Your task to perform on an android device: Open notification settings Image 0: 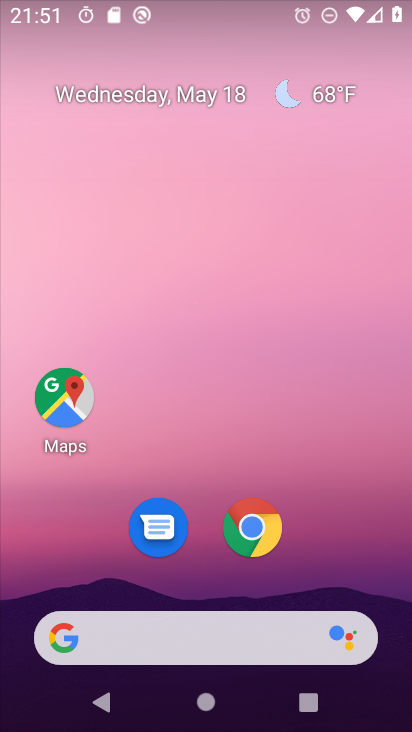
Step 0: click (408, 215)
Your task to perform on an android device: Open notification settings Image 1: 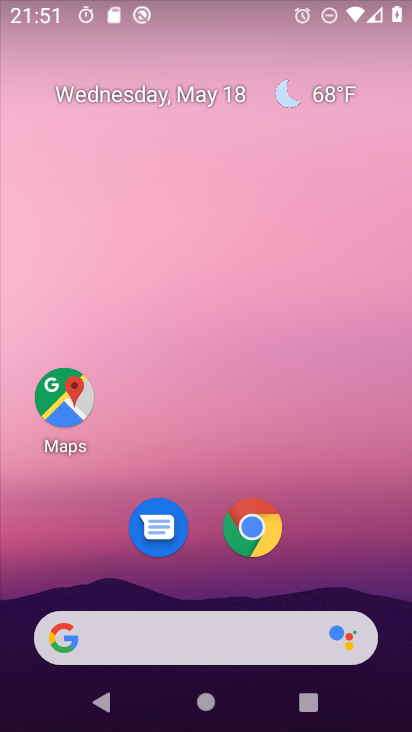
Step 1: drag from (398, 691) to (386, 269)
Your task to perform on an android device: Open notification settings Image 2: 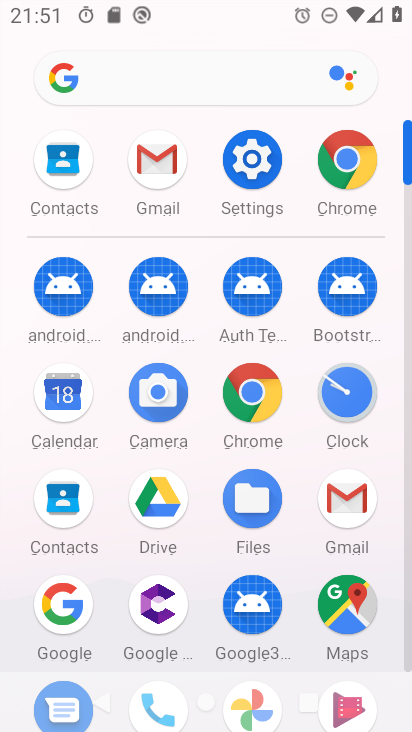
Step 2: click (243, 161)
Your task to perform on an android device: Open notification settings Image 3: 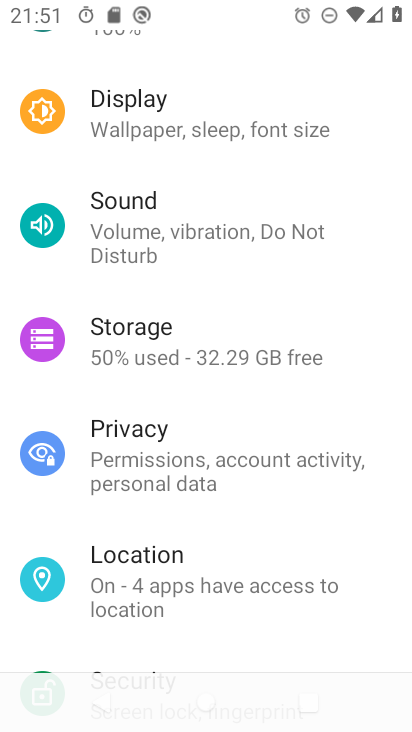
Step 3: drag from (278, 157) to (292, 555)
Your task to perform on an android device: Open notification settings Image 4: 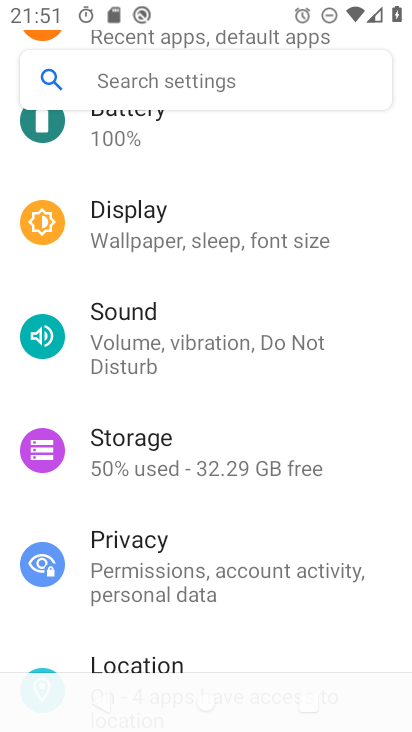
Step 4: drag from (235, 205) to (240, 576)
Your task to perform on an android device: Open notification settings Image 5: 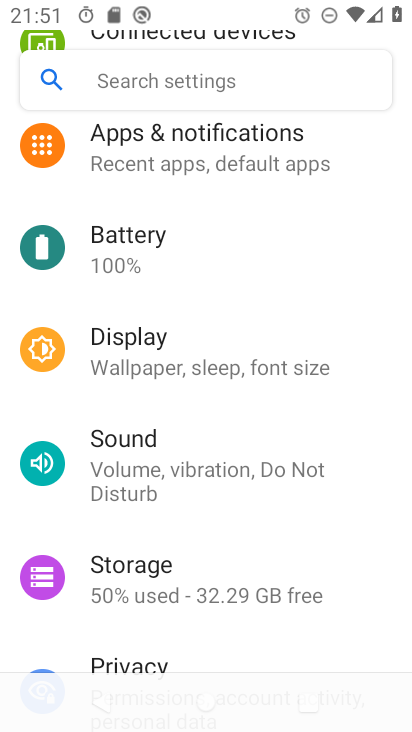
Step 5: click (203, 149)
Your task to perform on an android device: Open notification settings Image 6: 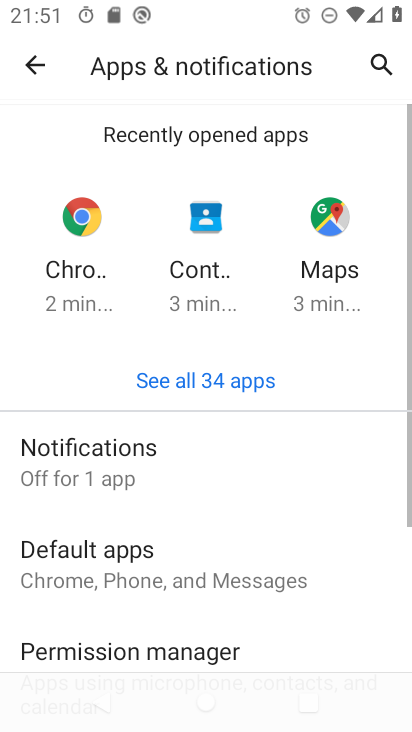
Step 6: click (97, 462)
Your task to perform on an android device: Open notification settings Image 7: 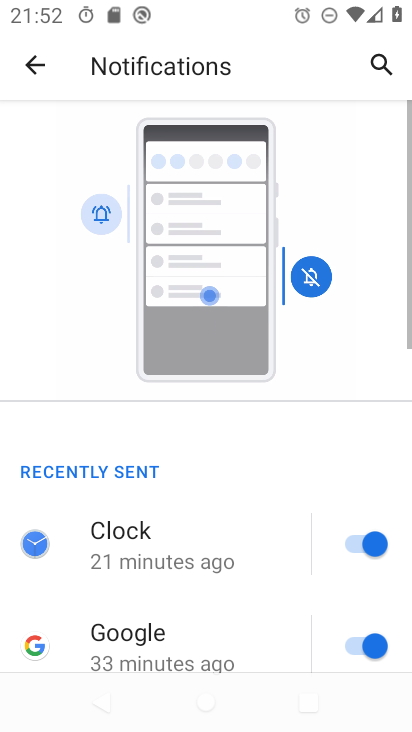
Step 7: task complete